Your task to perform on an android device: Open battery settings Image 0: 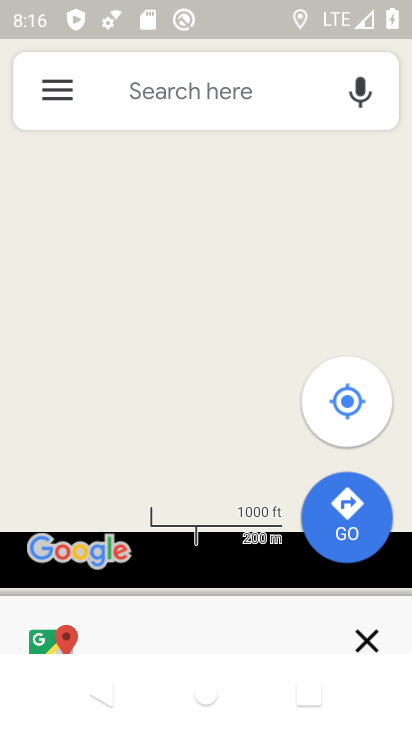
Step 0: drag from (210, 515) to (279, 42)
Your task to perform on an android device: Open battery settings Image 1: 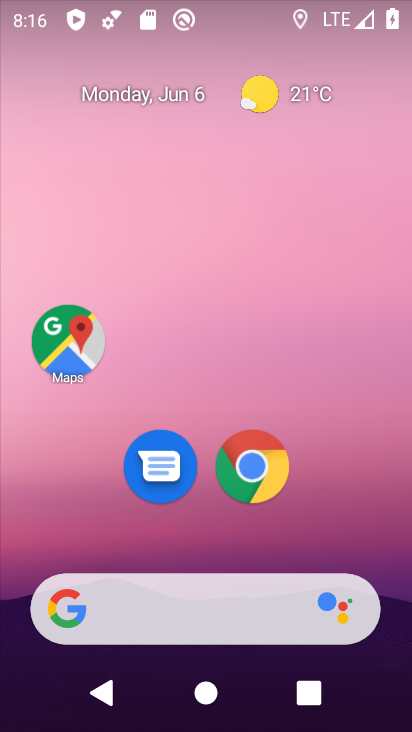
Step 1: drag from (214, 533) to (252, 46)
Your task to perform on an android device: Open battery settings Image 2: 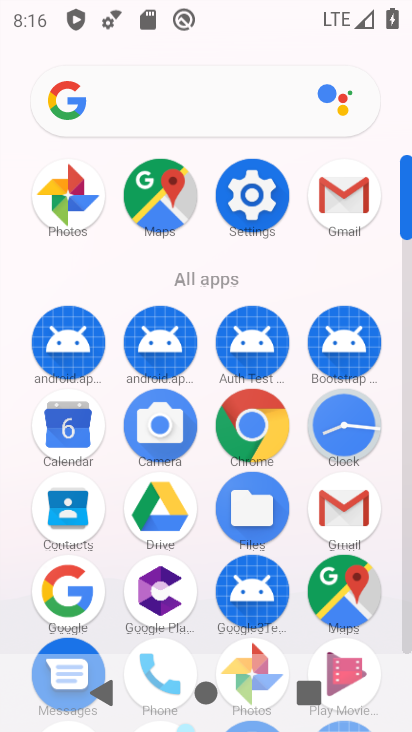
Step 2: click (255, 198)
Your task to perform on an android device: Open battery settings Image 3: 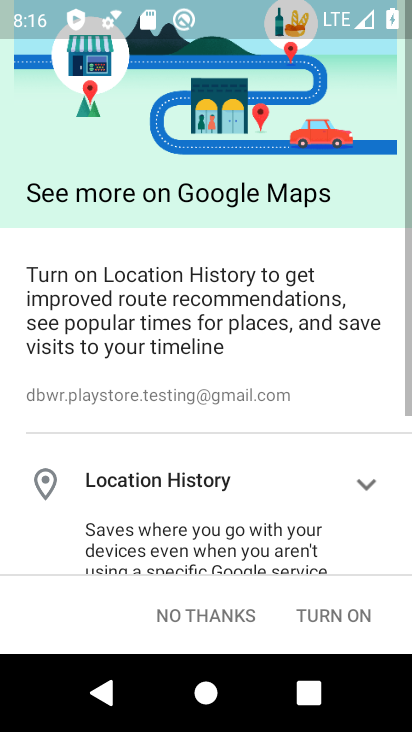
Step 3: drag from (193, 418) to (282, 112)
Your task to perform on an android device: Open battery settings Image 4: 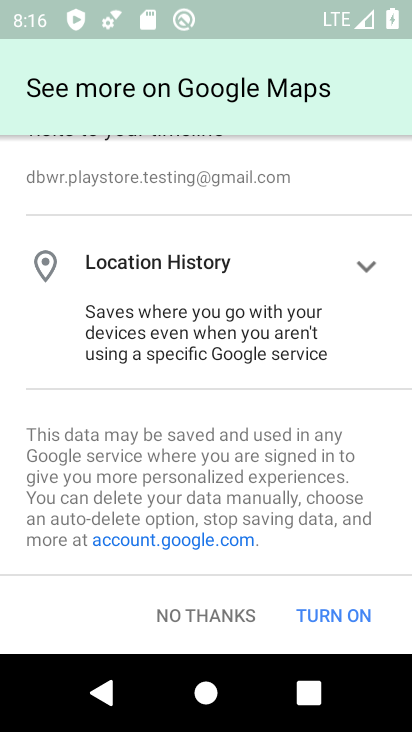
Step 4: press back button
Your task to perform on an android device: Open battery settings Image 5: 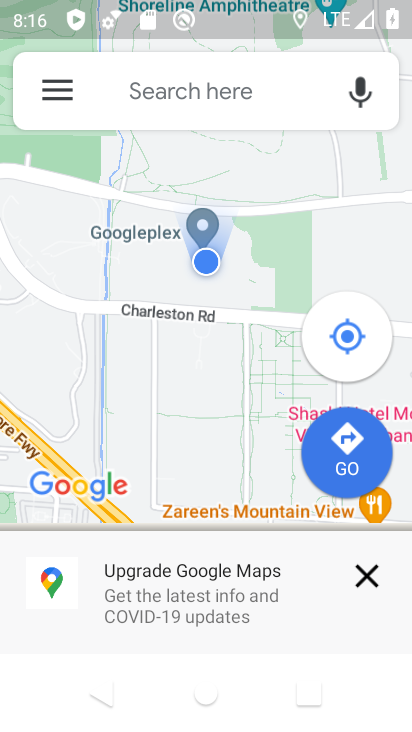
Step 5: press home button
Your task to perform on an android device: Open battery settings Image 6: 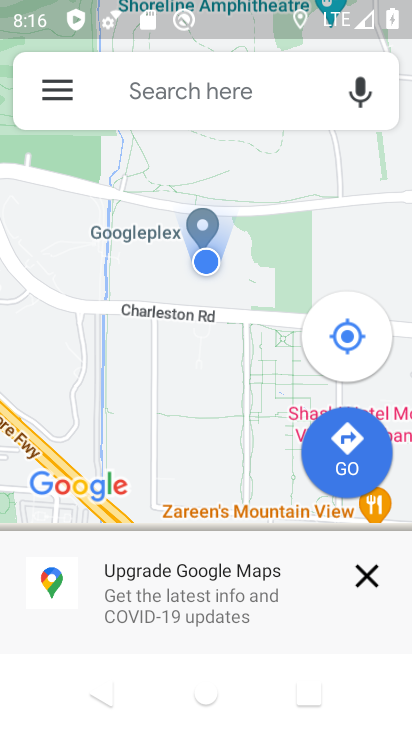
Step 6: drag from (216, 493) to (324, 2)
Your task to perform on an android device: Open battery settings Image 7: 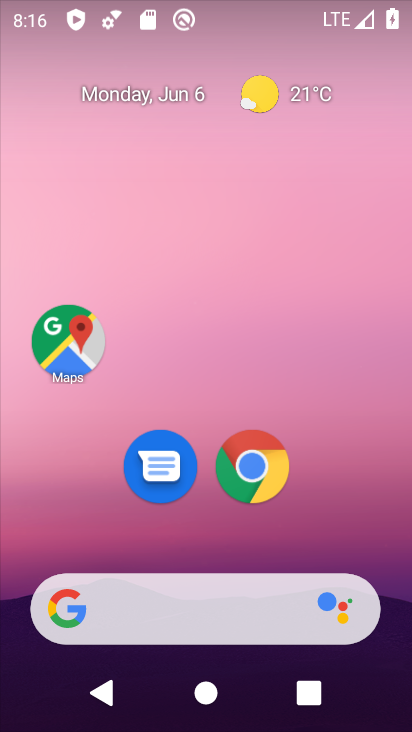
Step 7: drag from (239, 396) to (278, 115)
Your task to perform on an android device: Open battery settings Image 8: 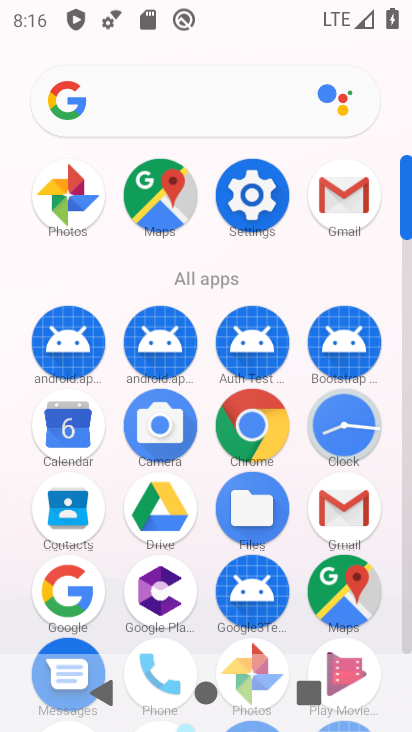
Step 8: click (253, 183)
Your task to perform on an android device: Open battery settings Image 9: 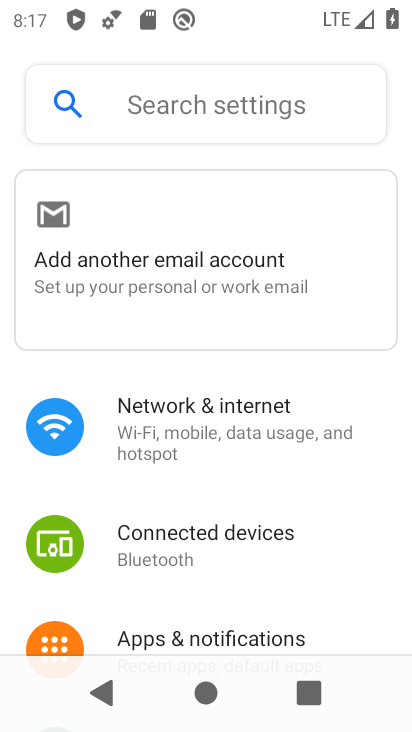
Step 9: drag from (200, 639) to (28, 76)
Your task to perform on an android device: Open battery settings Image 10: 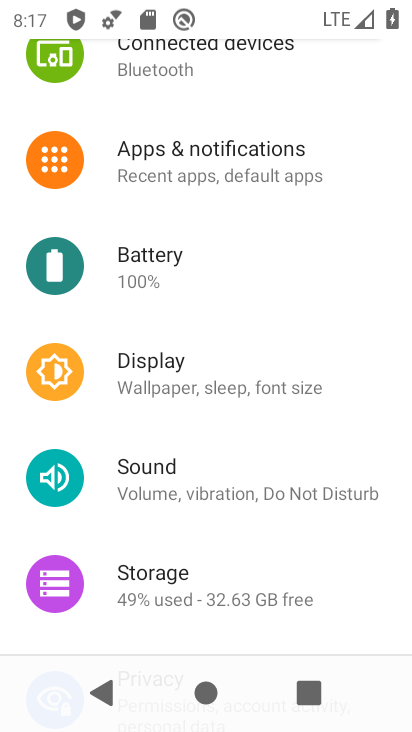
Step 10: click (178, 256)
Your task to perform on an android device: Open battery settings Image 11: 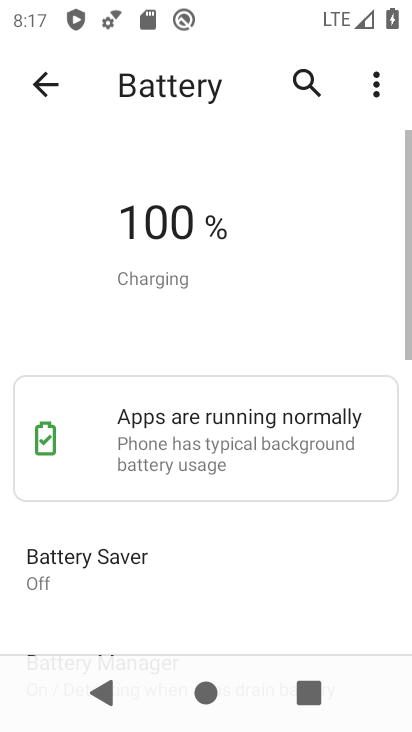
Step 11: drag from (166, 497) to (287, 91)
Your task to perform on an android device: Open battery settings Image 12: 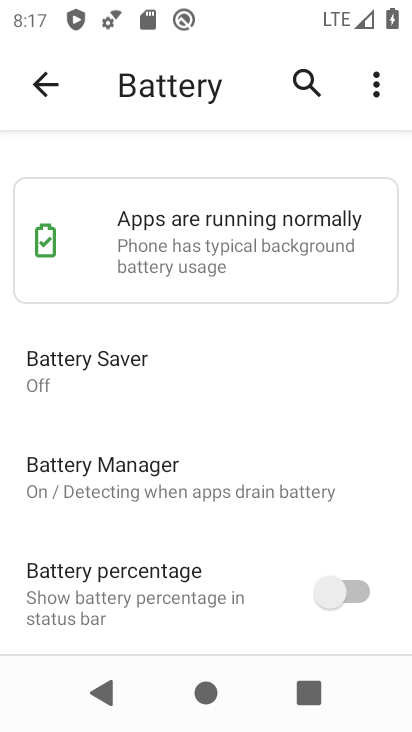
Step 12: click (367, 81)
Your task to perform on an android device: Open battery settings Image 13: 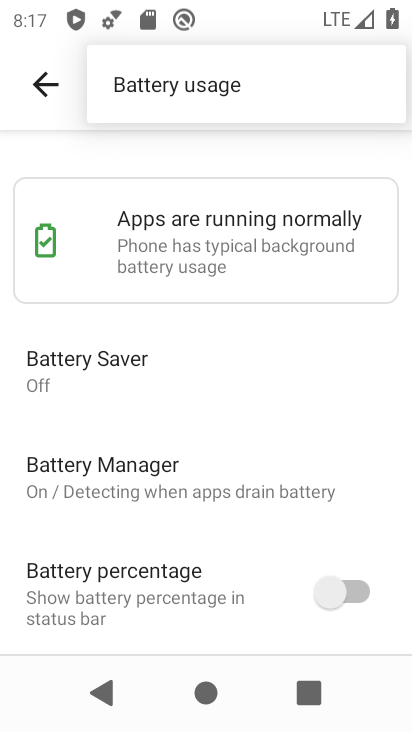
Step 13: task complete